Your task to perform on an android device: Open Wikipedia Image 0: 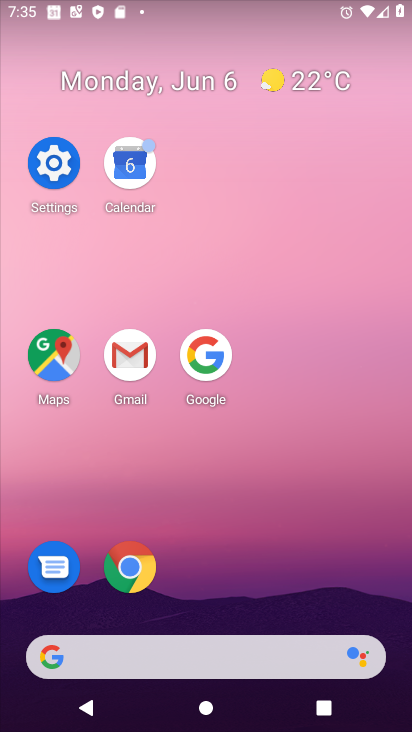
Step 0: click (140, 559)
Your task to perform on an android device: Open Wikipedia Image 1: 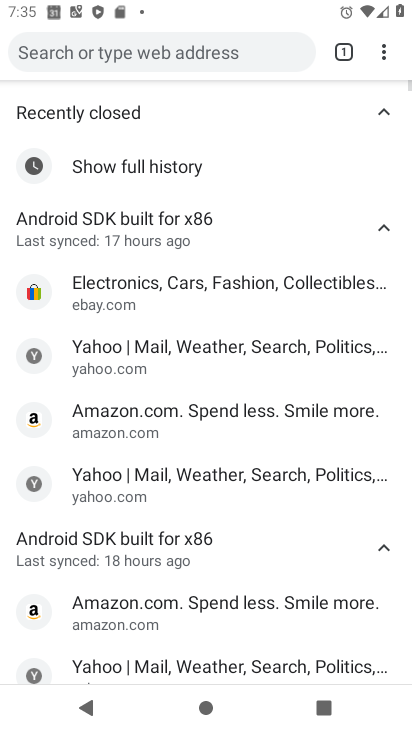
Step 1: click (345, 50)
Your task to perform on an android device: Open Wikipedia Image 2: 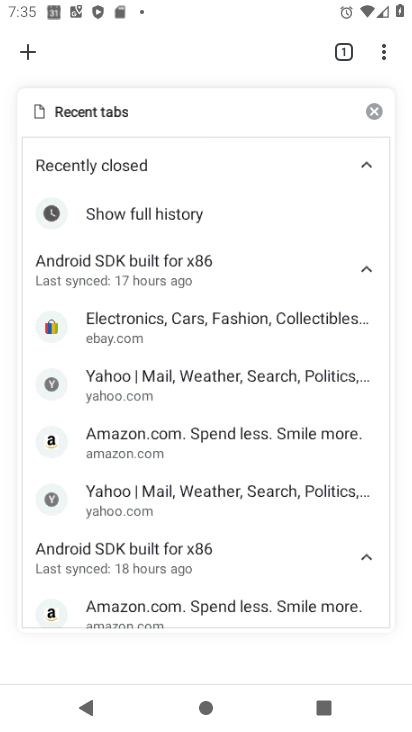
Step 2: click (16, 53)
Your task to perform on an android device: Open Wikipedia Image 3: 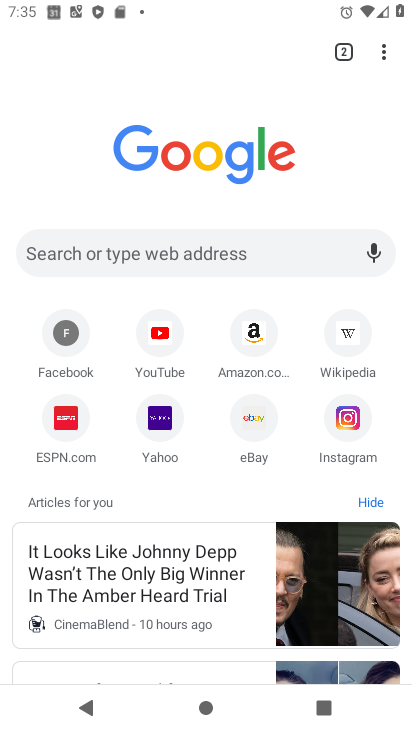
Step 3: drag from (152, 229) to (204, 303)
Your task to perform on an android device: Open Wikipedia Image 4: 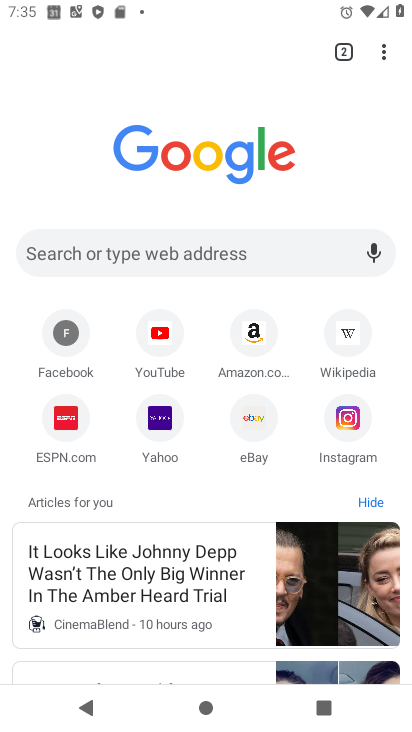
Step 4: click (333, 335)
Your task to perform on an android device: Open Wikipedia Image 5: 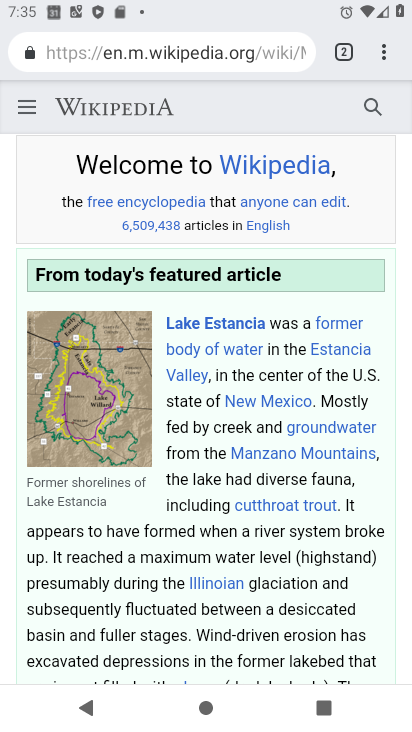
Step 5: task complete